Your task to perform on an android device: Open settings on Google Maps Image 0: 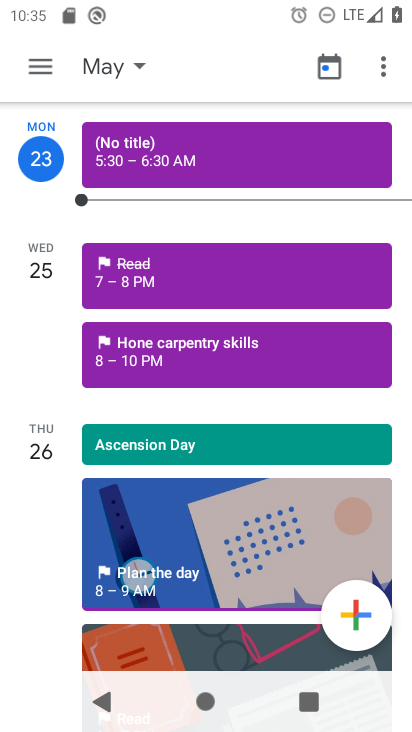
Step 0: press home button
Your task to perform on an android device: Open settings on Google Maps Image 1: 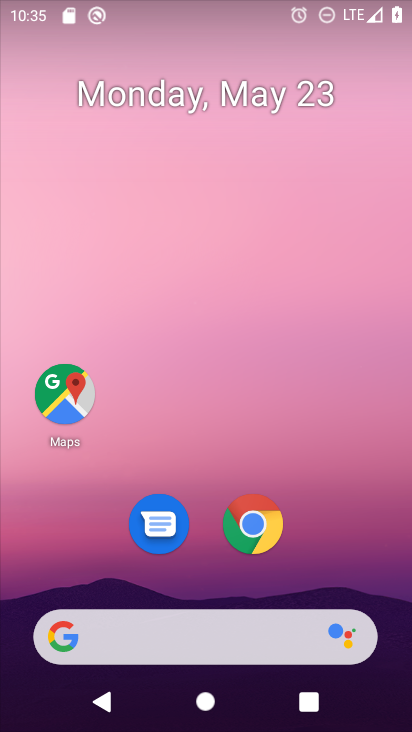
Step 1: click (69, 393)
Your task to perform on an android device: Open settings on Google Maps Image 2: 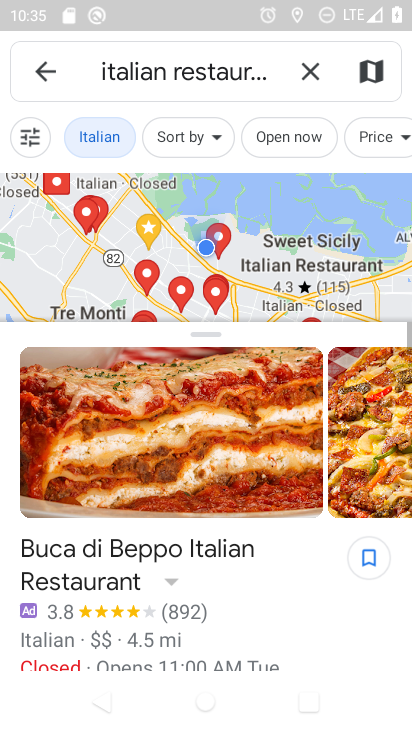
Step 2: click (41, 69)
Your task to perform on an android device: Open settings on Google Maps Image 3: 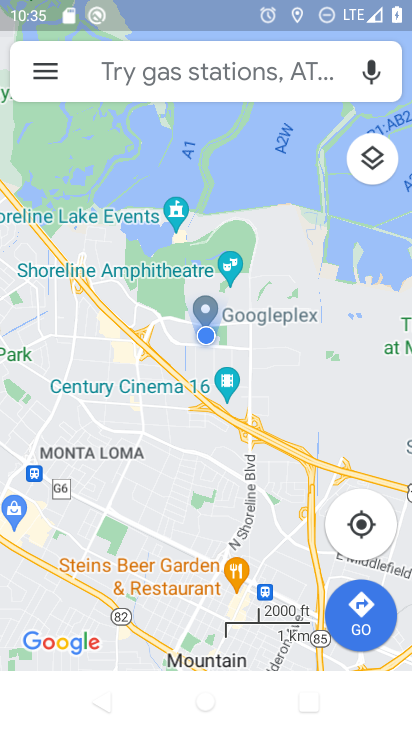
Step 3: click (41, 69)
Your task to perform on an android device: Open settings on Google Maps Image 4: 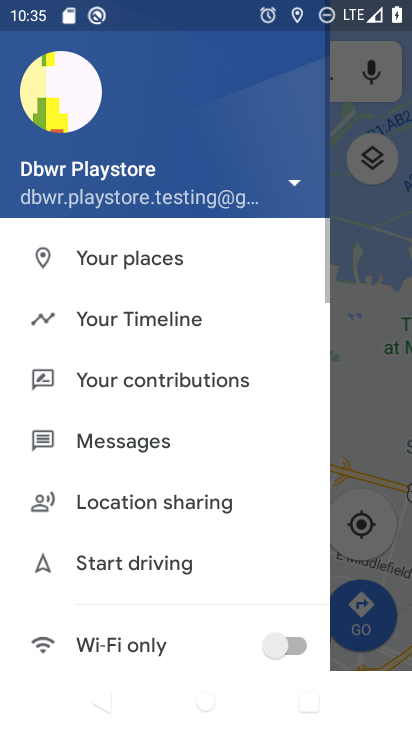
Step 4: drag from (137, 453) to (222, 13)
Your task to perform on an android device: Open settings on Google Maps Image 5: 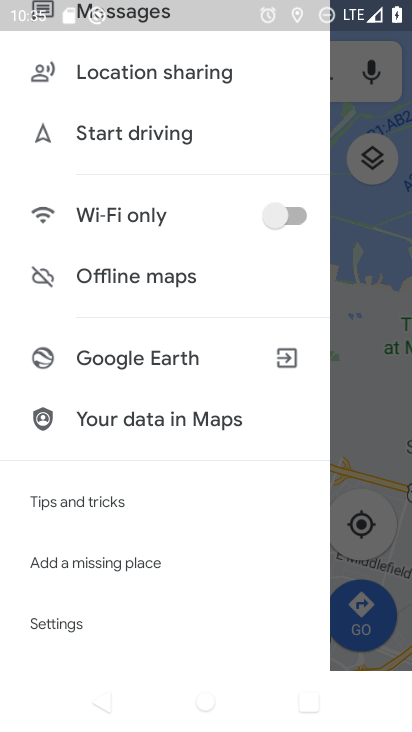
Step 5: click (87, 621)
Your task to perform on an android device: Open settings on Google Maps Image 6: 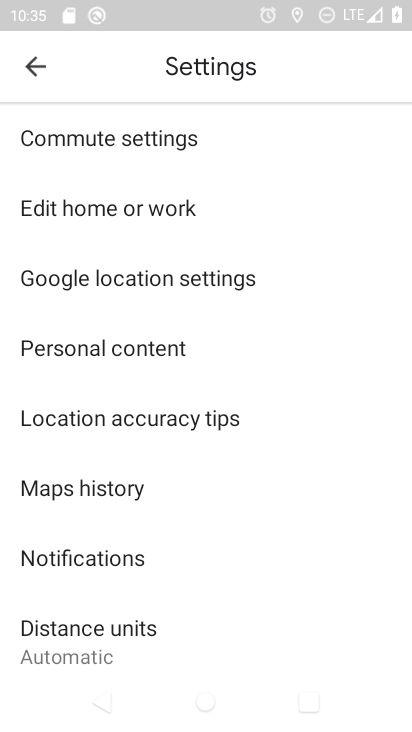
Step 6: task complete